Your task to perform on an android device: What's on my calendar today? Image 0: 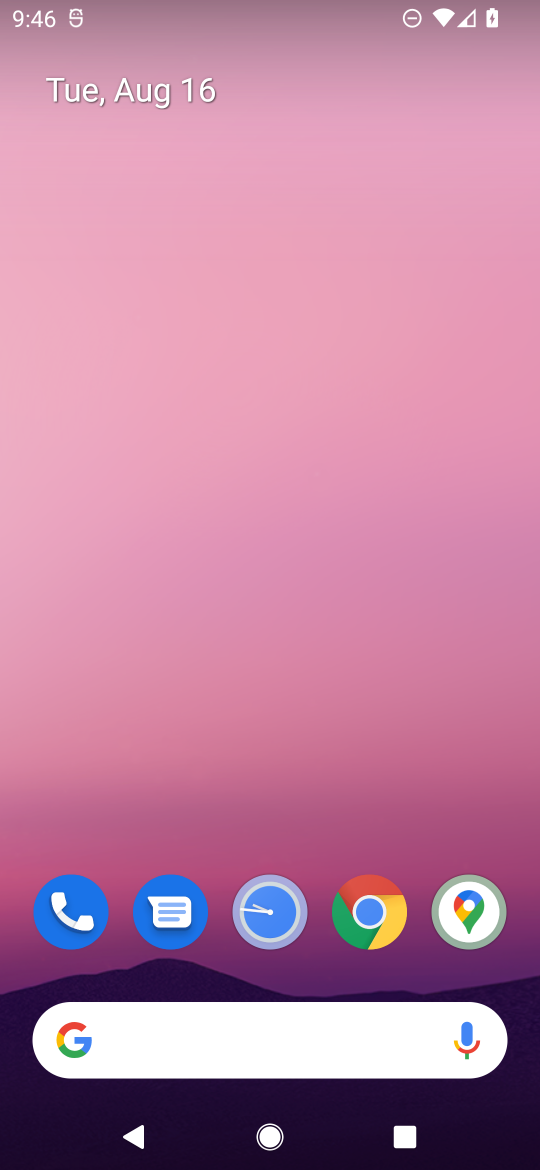
Step 0: click (129, 109)
Your task to perform on an android device: What's on my calendar today? Image 1: 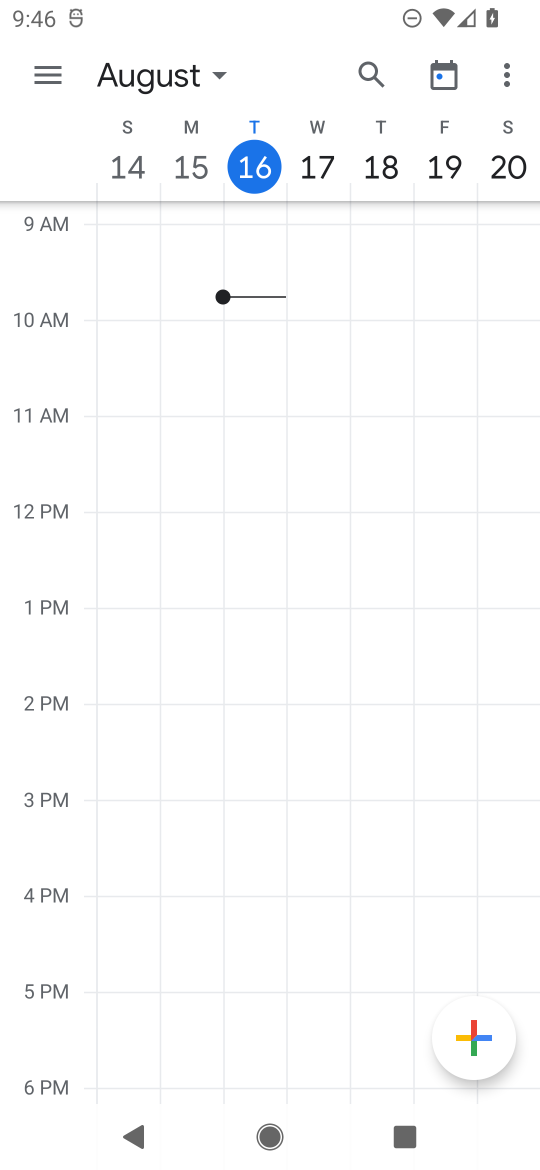
Step 1: task complete